Your task to perform on an android device: Open Google Image 0: 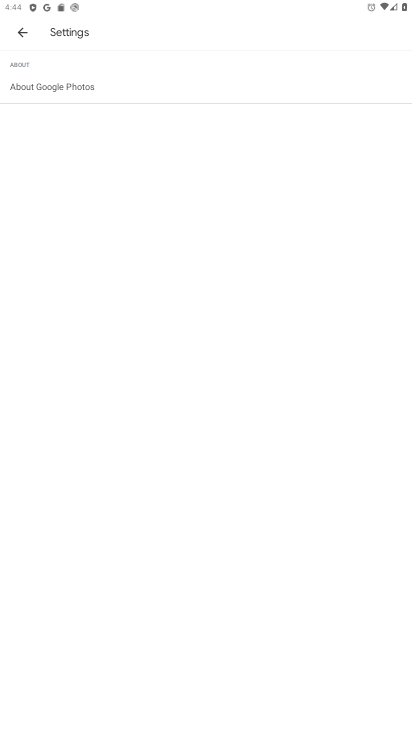
Step 0: drag from (216, 664) to (286, 87)
Your task to perform on an android device: Open Google Image 1: 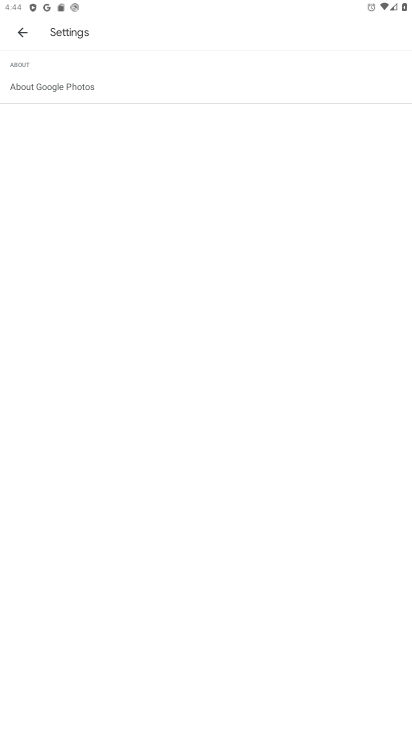
Step 1: press home button
Your task to perform on an android device: Open Google Image 2: 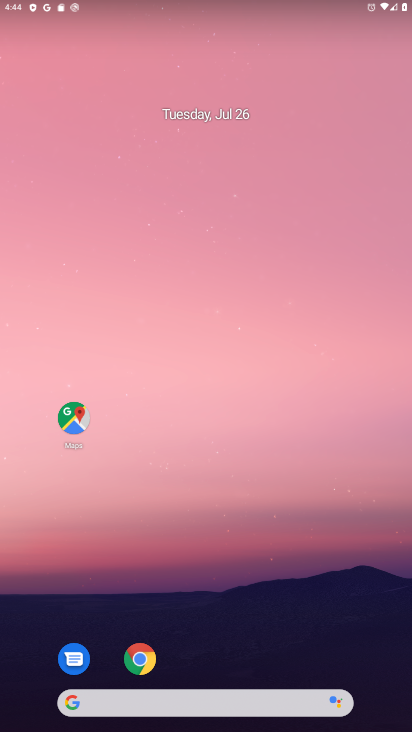
Step 2: drag from (194, 654) to (204, 87)
Your task to perform on an android device: Open Google Image 3: 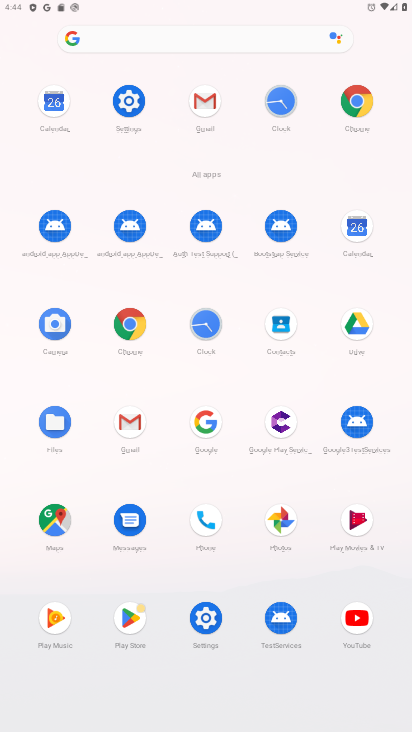
Step 3: click (201, 414)
Your task to perform on an android device: Open Google Image 4: 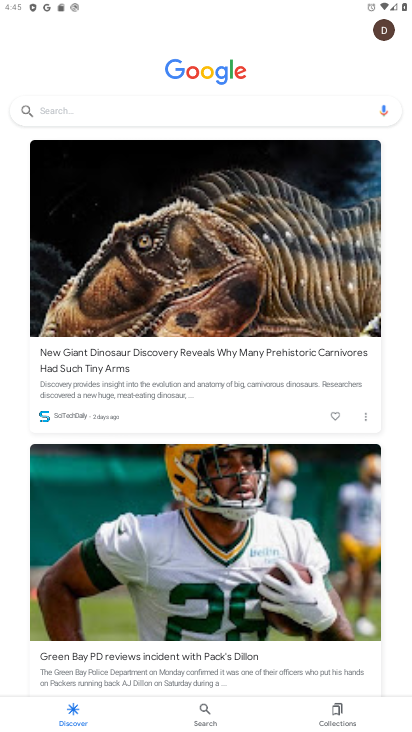
Step 4: task complete